Your task to perform on an android device: Open the web browser Image 0: 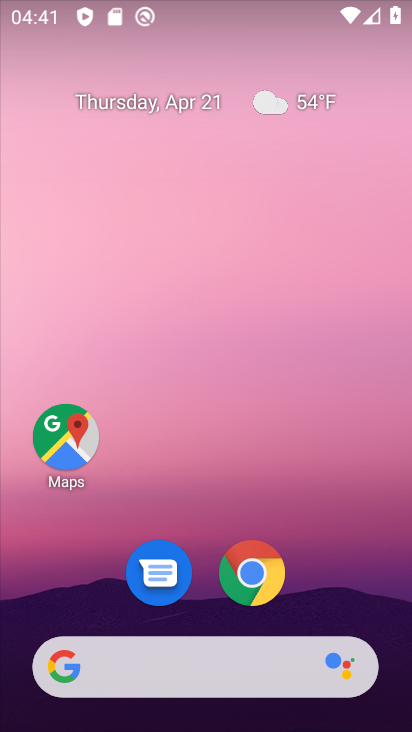
Step 0: click (248, 578)
Your task to perform on an android device: Open the web browser Image 1: 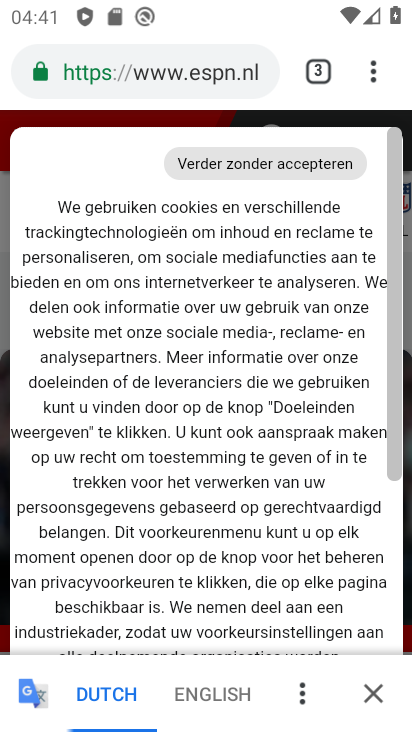
Step 1: click (371, 69)
Your task to perform on an android device: Open the web browser Image 2: 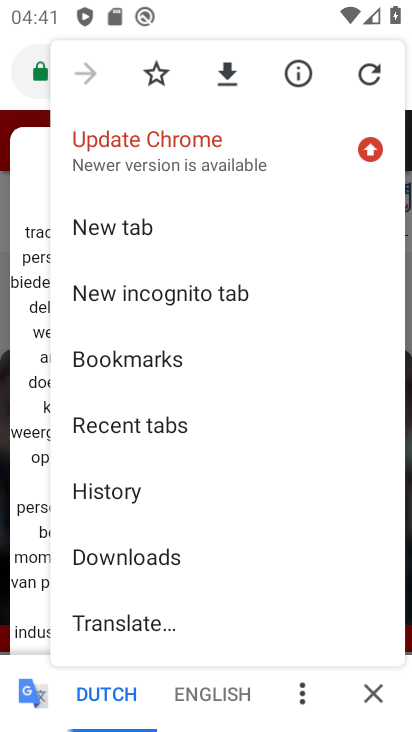
Step 2: click (105, 223)
Your task to perform on an android device: Open the web browser Image 3: 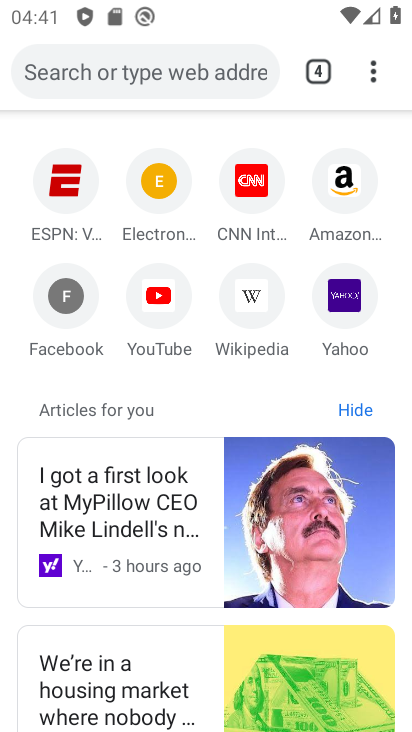
Step 3: task complete